Your task to perform on an android device: turn notification dots off Image 0: 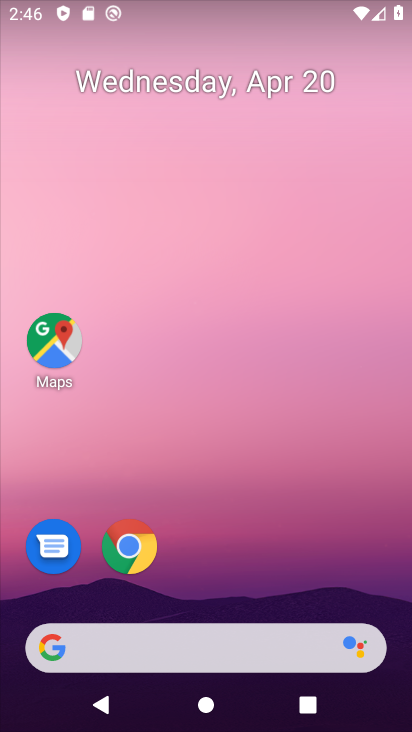
Step 0: drag from (248, 585) to (237, 161)
Your task to perform on an android device: turn notification dots off Image 1: 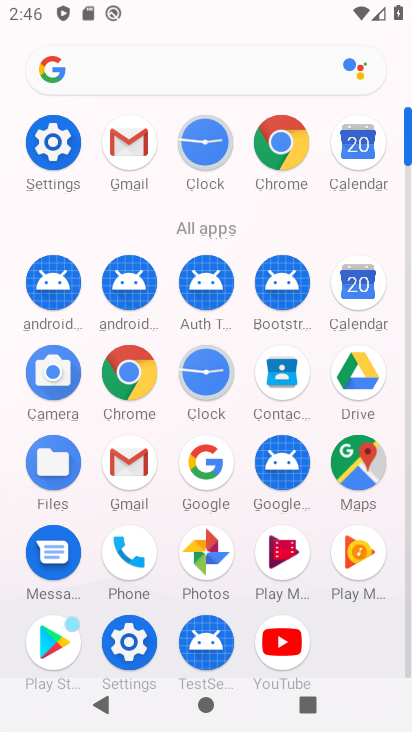
Step 1: click (119, 638)
Your task to perform on an android device: turn notification dots off Image 2: 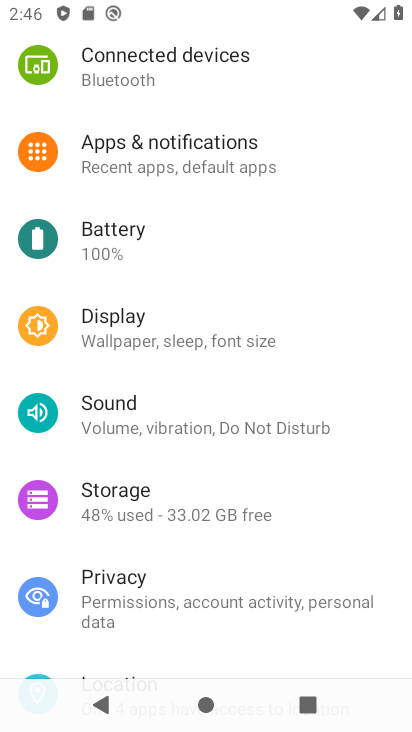
Step 2: click (185, 153)
Your task to perform on an android device: turn notification dots off Image 3: 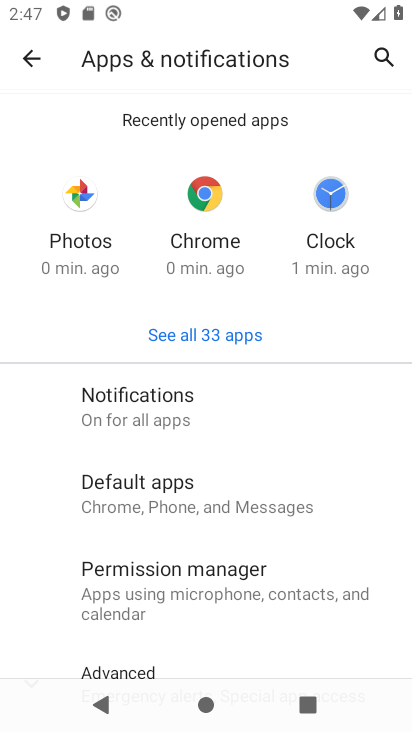
Step 3: click (141, 418)
Your task to perform on an android device: turn notification dots off Image 4: 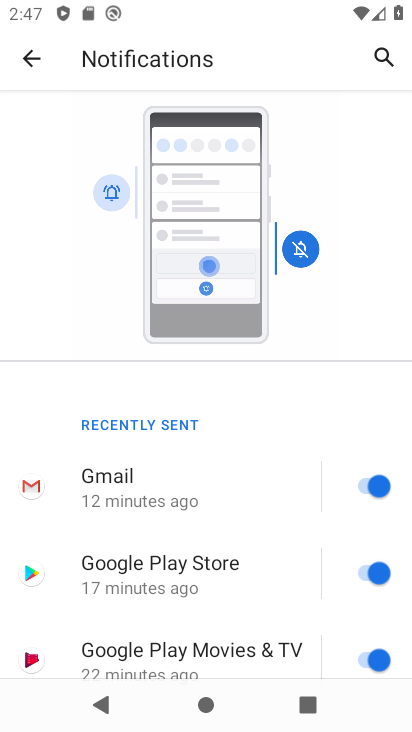
Step 4: drag from (208, 623) to (218, 331)
Your task to perform on an android device: turn notification dots off Image 5: 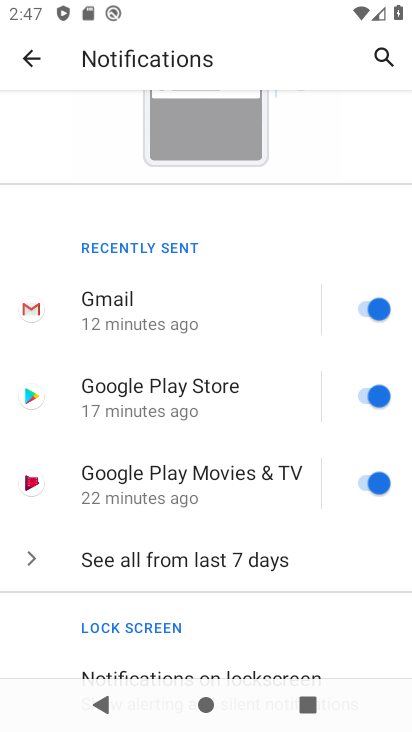
Step 5: drag from (195, 601) to (214, 424)
Your task to perform on an android device: turn notification dots off Image 6: 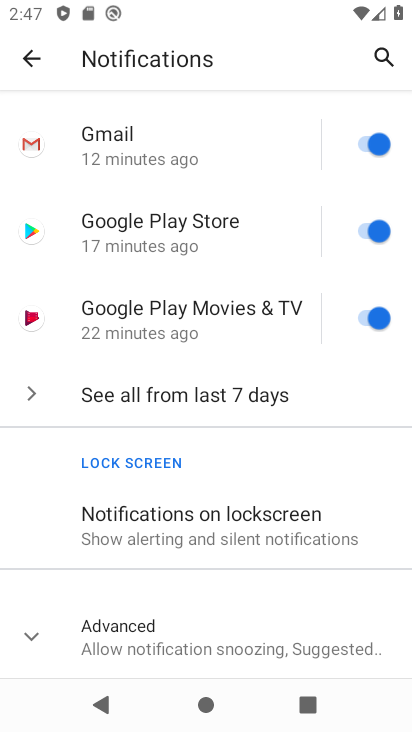
Step 6: click (23, 641)
Your task to perform on an android device: turn notification dots off Image 7: 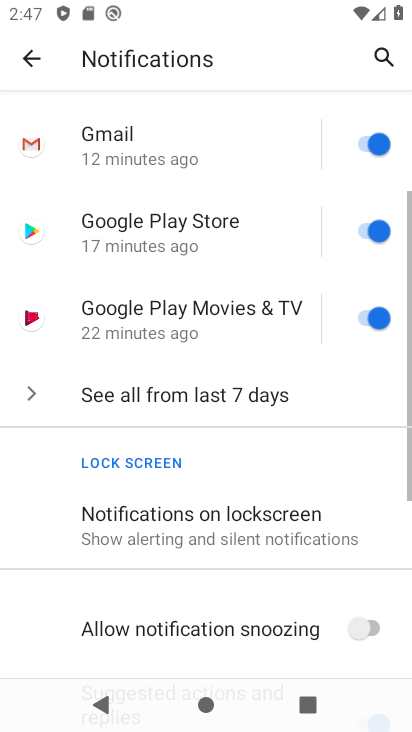
Step 7: drag from (164, 634) to (198, 343)
Your task to perform on an android device: turn notification dots off Image 8: 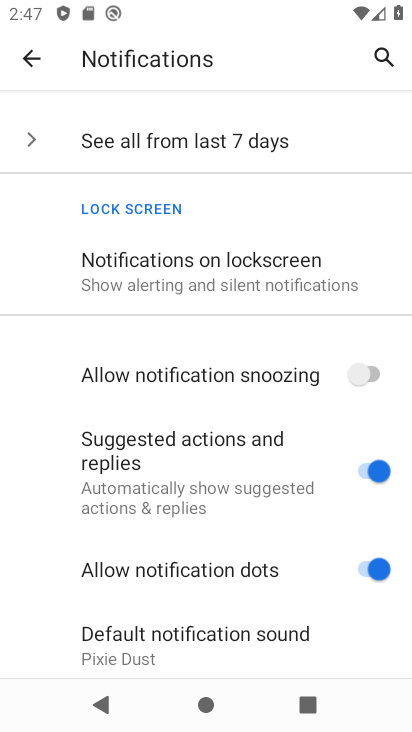
Step 8: click (369, 564)
Your task to perform on an android device: turn notification dots off Image 9: 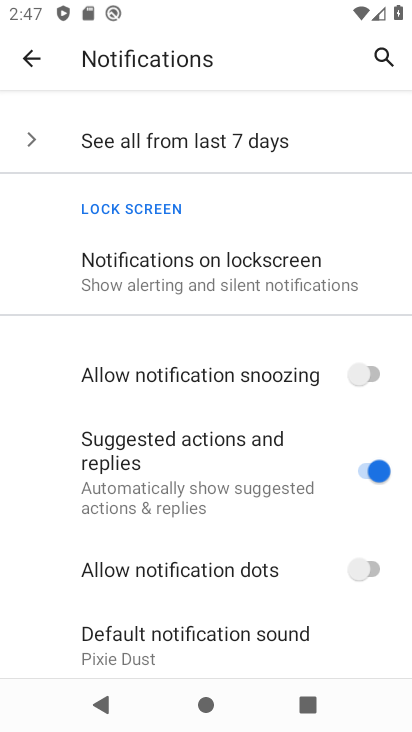
Step 9: task complete